Your task to perform on an android device: Open the map Image 0: 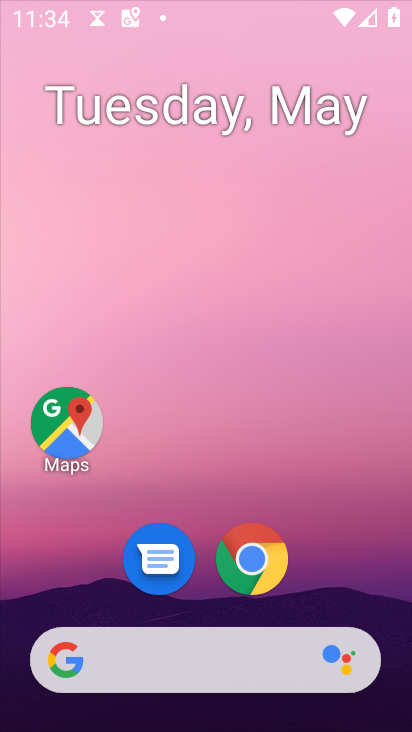
Step 0: drag from (384, 595) to (346, 116)
Your task to perform on an android device: Open the map Image 1: 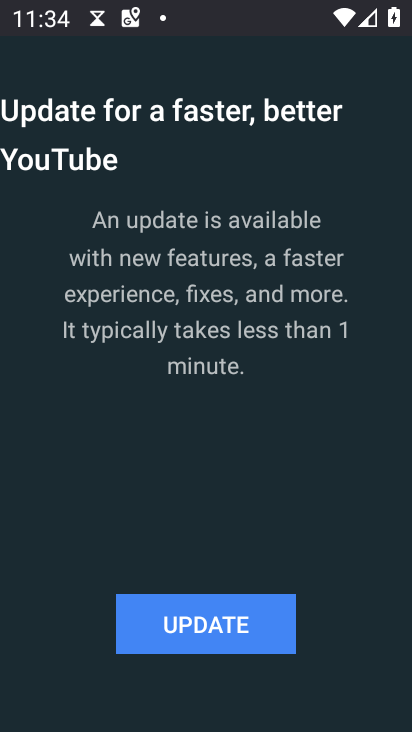
Step 1: press home button
Your task to perform on an android device: Open the map Image 2: 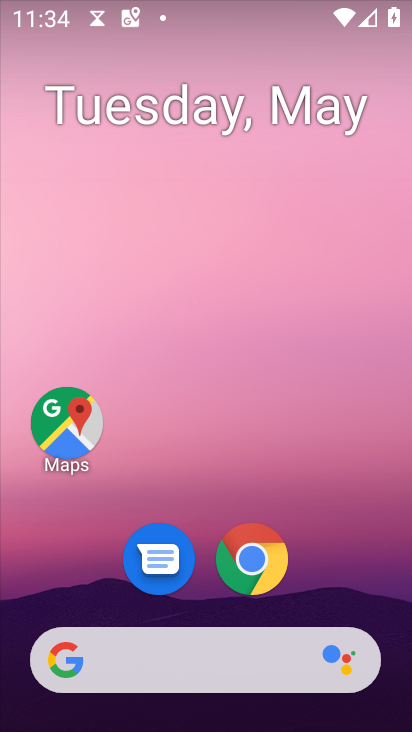
Step 2: drag from (339, 574) to (339, 44)
Your task to perform on an android device: Open the map Image 3: 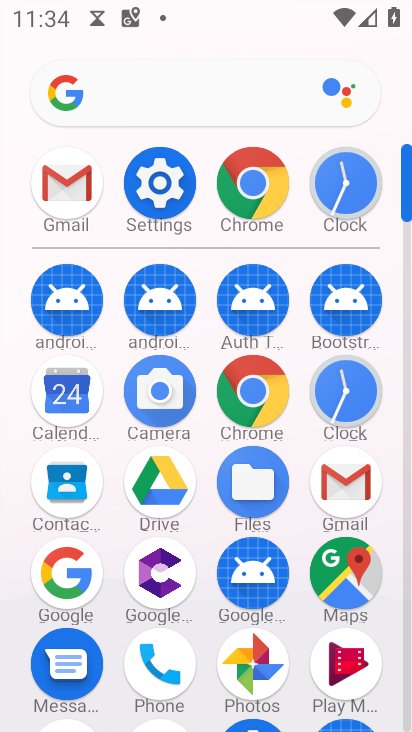
Step 3: click (351, 585)
Your task to perform on an android device: Open the map Image 4: 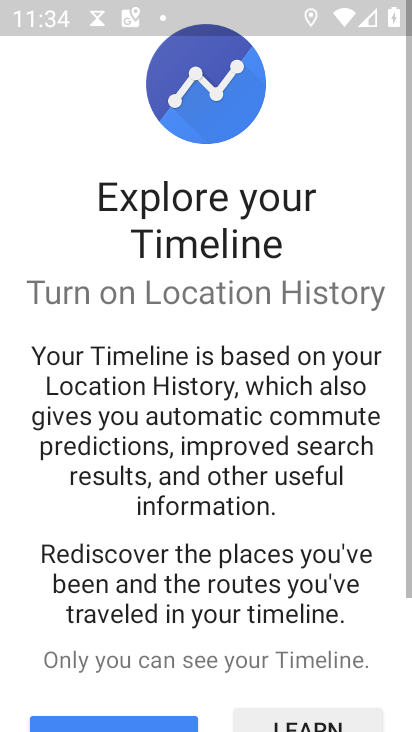
Step 4: drag from (351, 584) to (324, 150)
Your task to perform on an android device: Open the map Image 5: 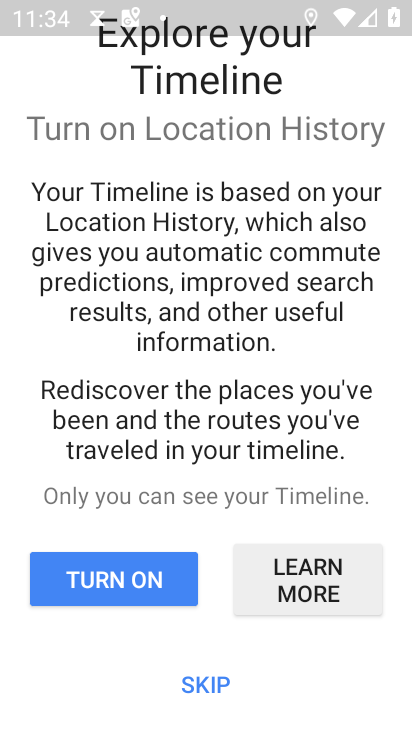
Step 5: click (226, 689)
Your task to perform on an android device: Open the map Image 6: 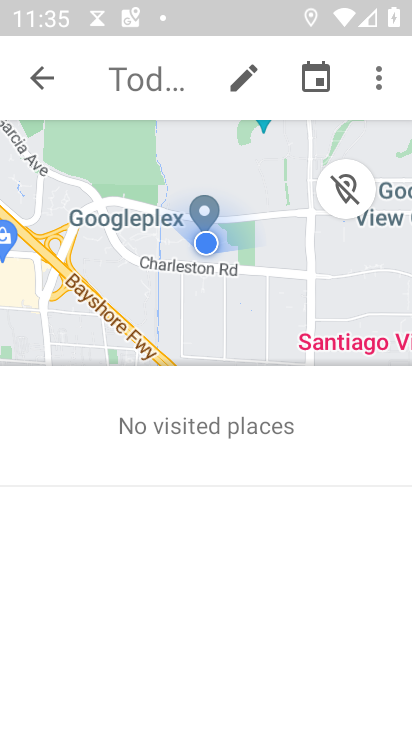
Step 6: task complete